Your task to perform on an android device: Set the phone to "Do not disturb". Image 0: 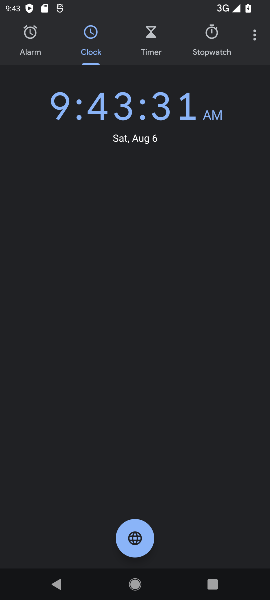
Step 0: press home button
Your task to perform on an android device: Set the phone to "Do not disturb". Image 1: 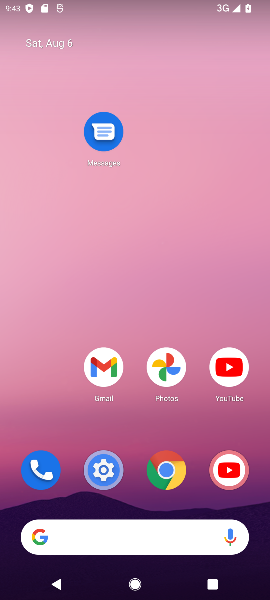
Step 1: drag from (159, 559) to (131, 147)
Your task to perform on an android device: Set the phone to "Do not disturb". Image 2: 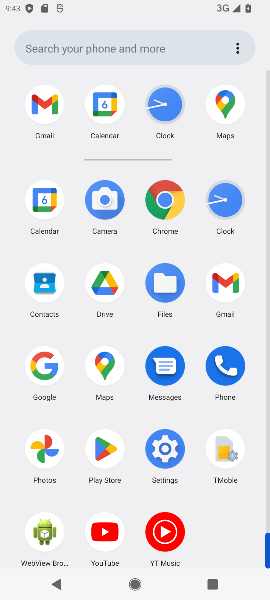
Step 2: drag from (151, 0) to (159, 236)
Your task to perform on an android device: Set the phone to "Do not disturb". Image 3: 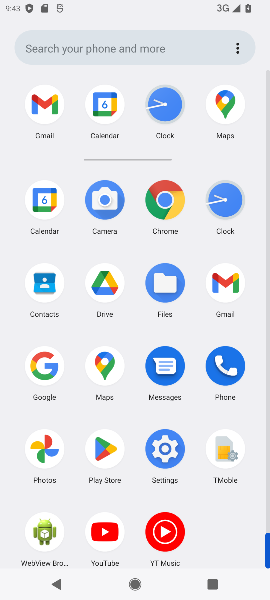
Step 3: drag from (148, 39) to (137, 421)
Your task to perform on an android device: Set the phone to "Do not disturb". Image 4: 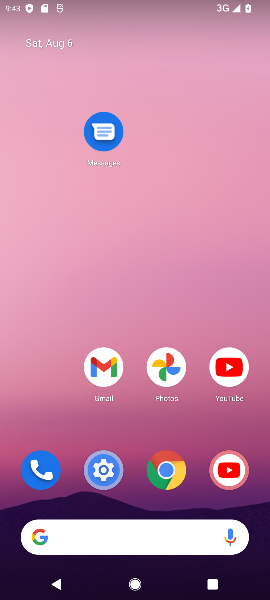
Step 4: drag from (166, 6) to (164, 340)
Your task to perform on an android device: Set the phone to "Do not disturb". Image 5: 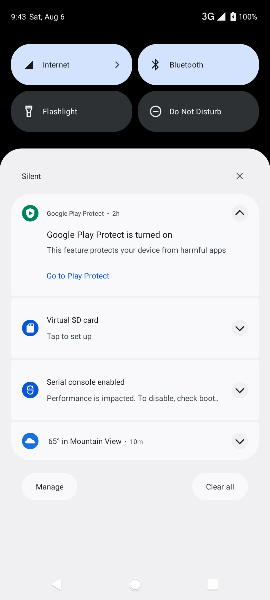
Step 5: drag from (131, 114) to (144, 383)
Your task to perform on an android device: Set the phone to "Do not disturb". Image 6: 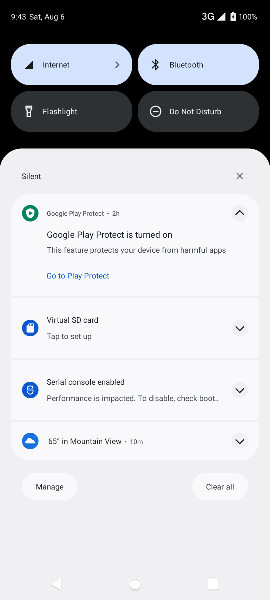
Step 6: click (197, 113)
Your task to perform on an android device: Set the phone to "Do not disturb". Image 7: 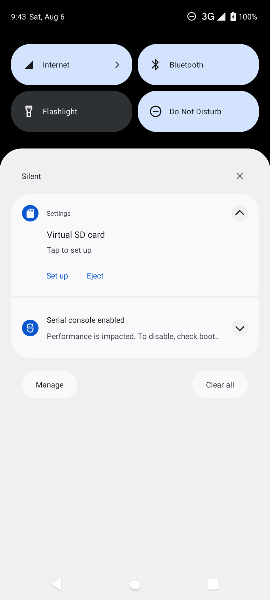
Step 7: task complete